Your task to perform on an android device: Open maps Image 0: 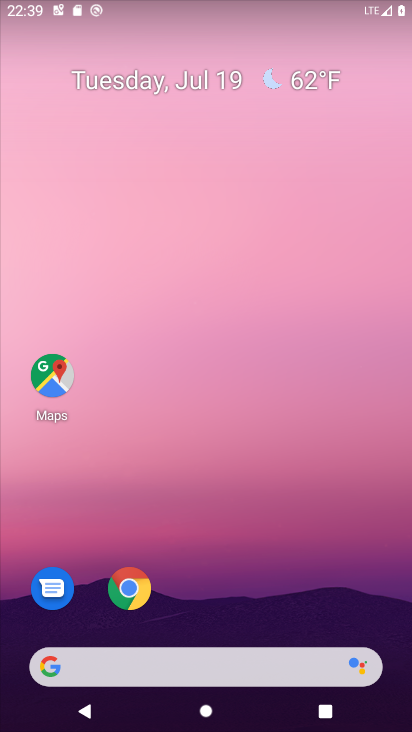
Step 0: click (46, 372)
Your task to perform on an android device: Open maps Image 1: 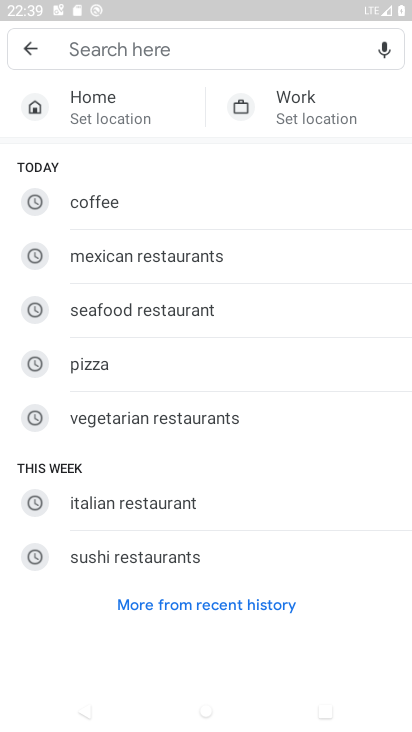
Step 1: click (27, 43)
Your task to perform on an android device: Open maps Image 2: 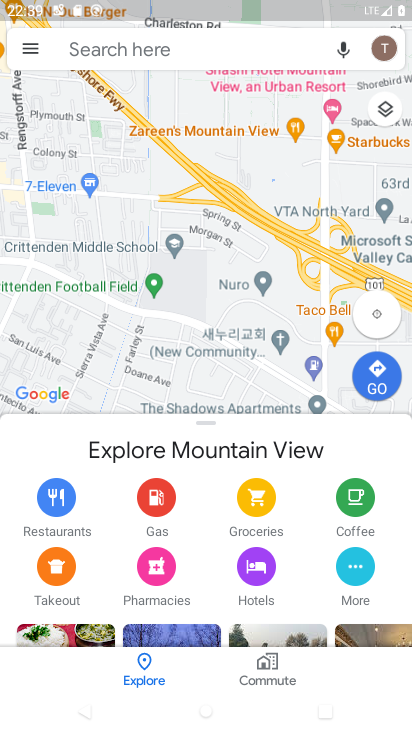
Step 2: task complete